Your task to perform on an android device: Clear the shopping cart on newegg. Image 0: 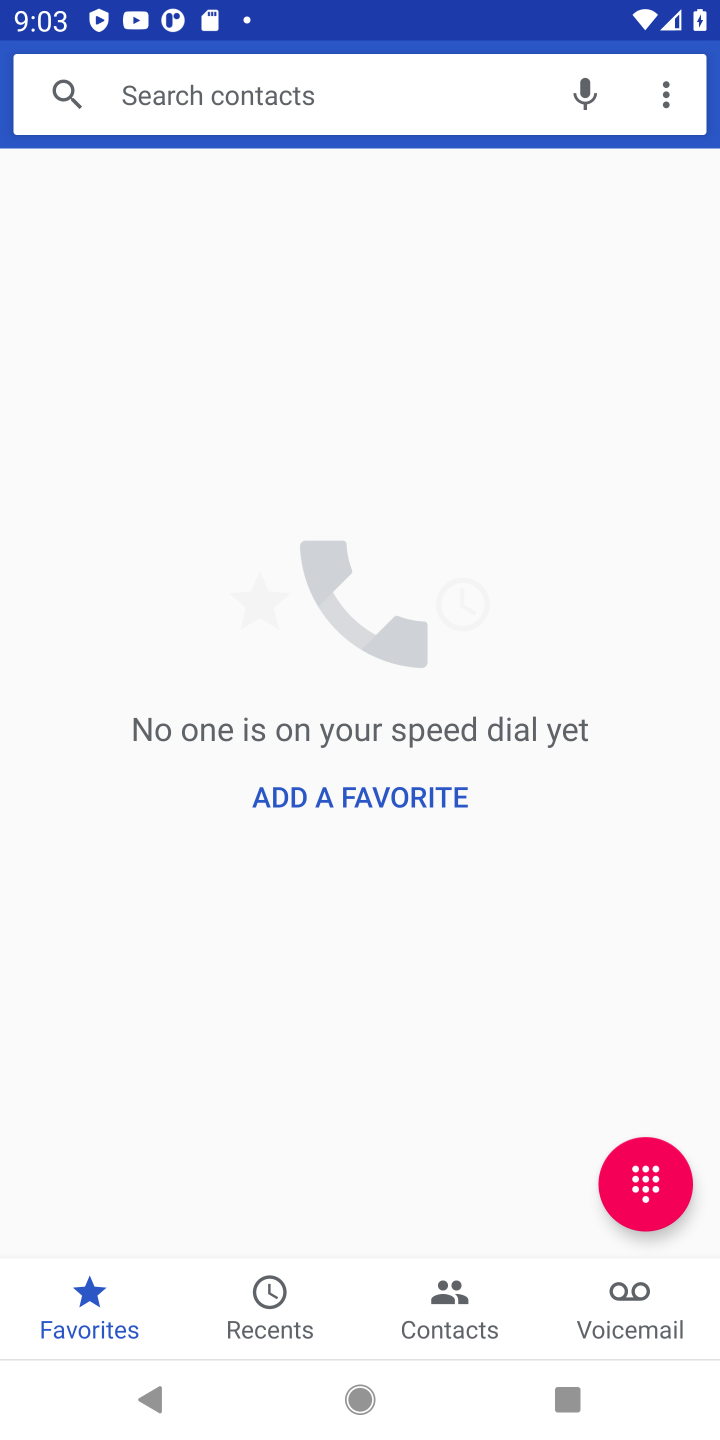
Step 0: press home button
Your task to perform on an android device: Clear the shopping cart on newegg. Image 1: 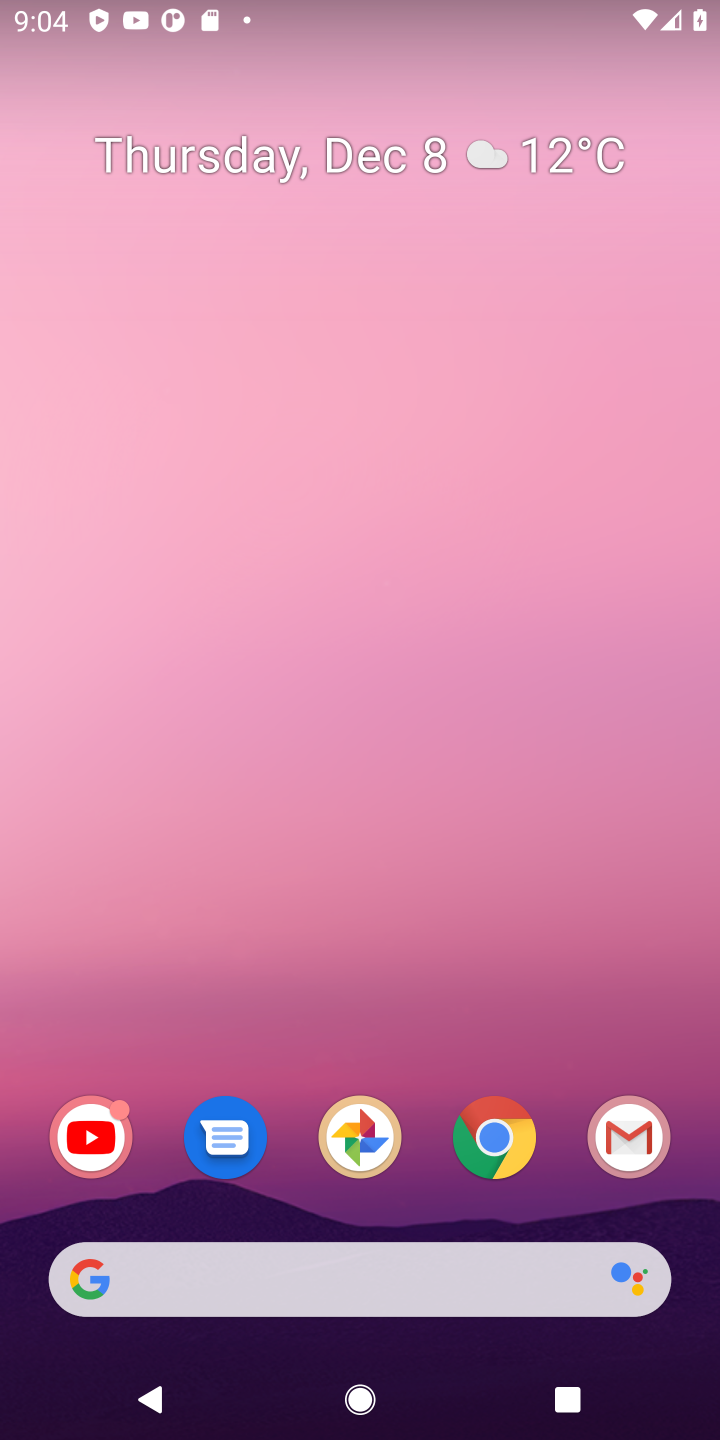
Step 1: click (486, 1142)
Your task to perform on an android device: Clear the shopping cart on newegg. Image 2: 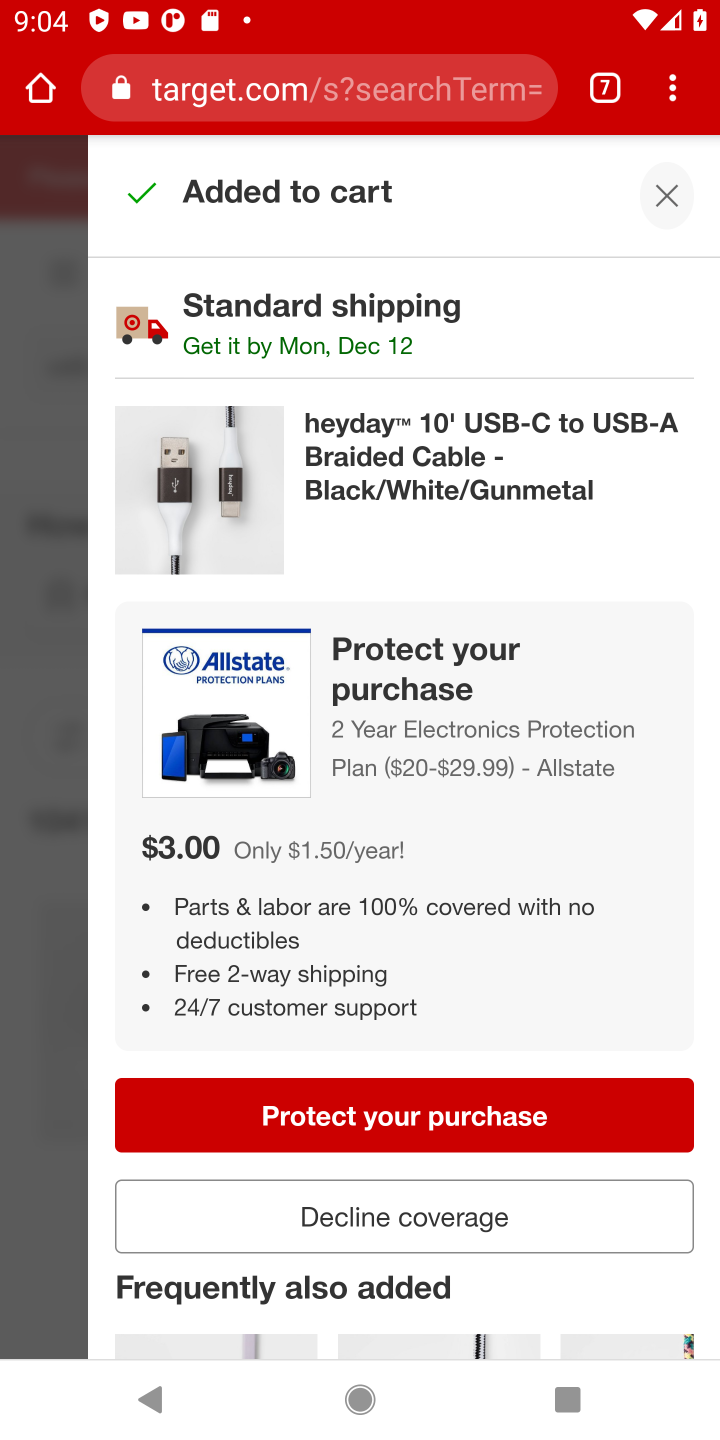
Step 2: click (600, 98)
Your task to perform on an android device: Clear the shopping cart on newegg. Image 3: 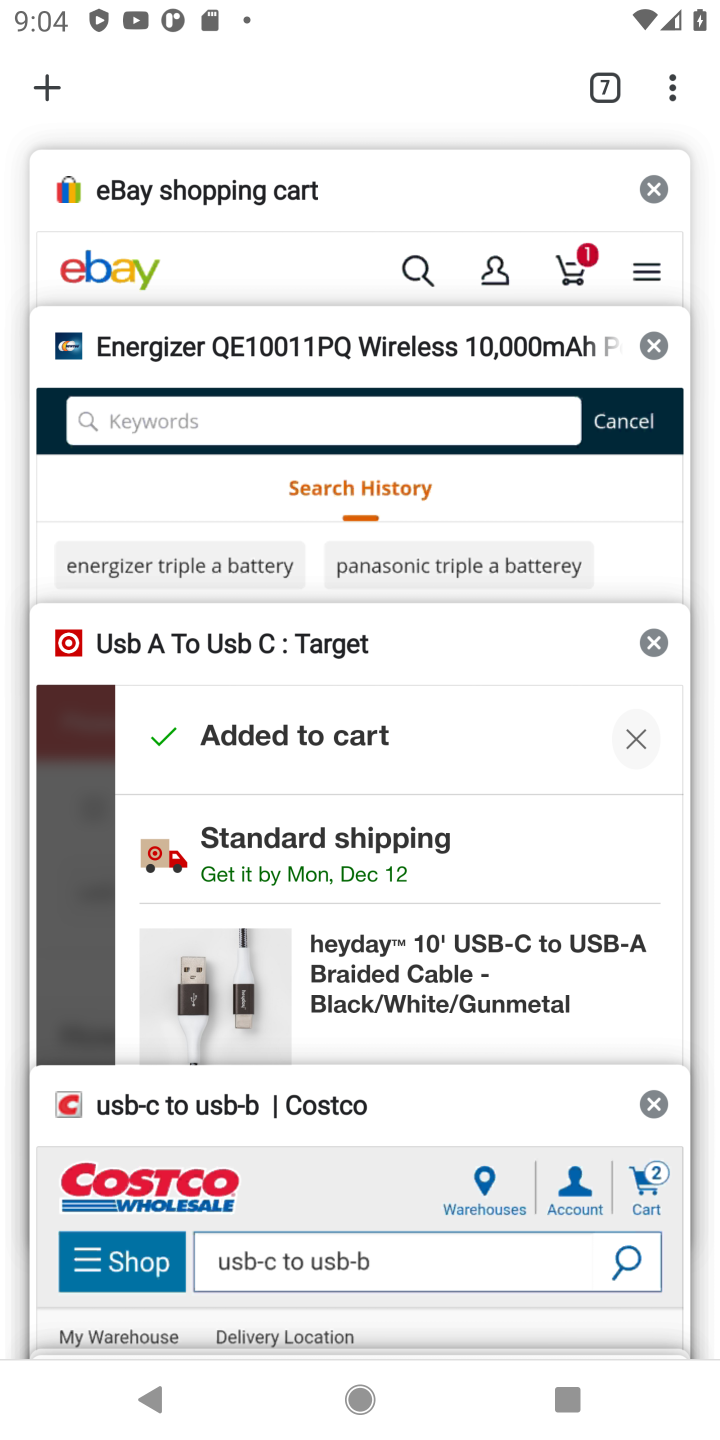
Step 3: click (305, 420)
Your task to perform on an android device: Clear the shopping cart on newegg. Image 4: 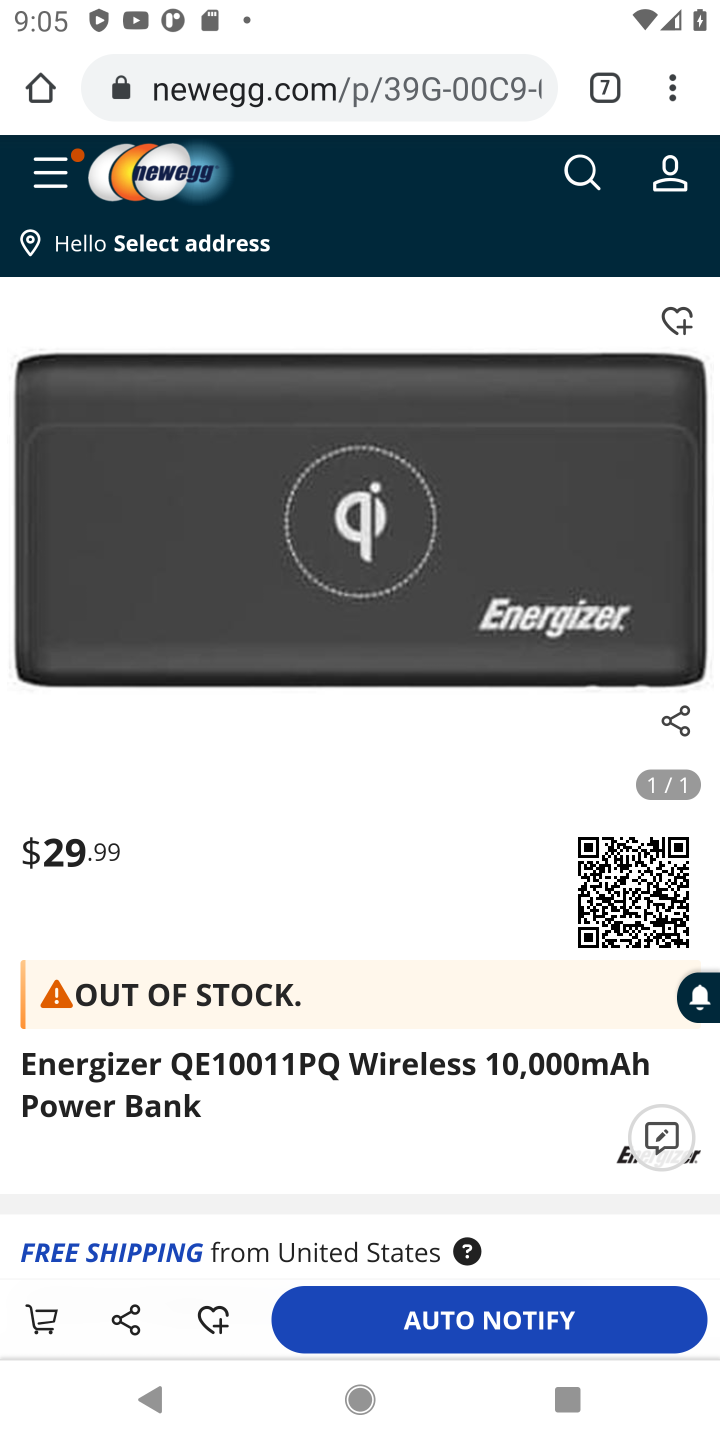
Step 4: click (42, 1303)
Your task to perform on an android device: Clear the shopping cart on newegg. Image 5: 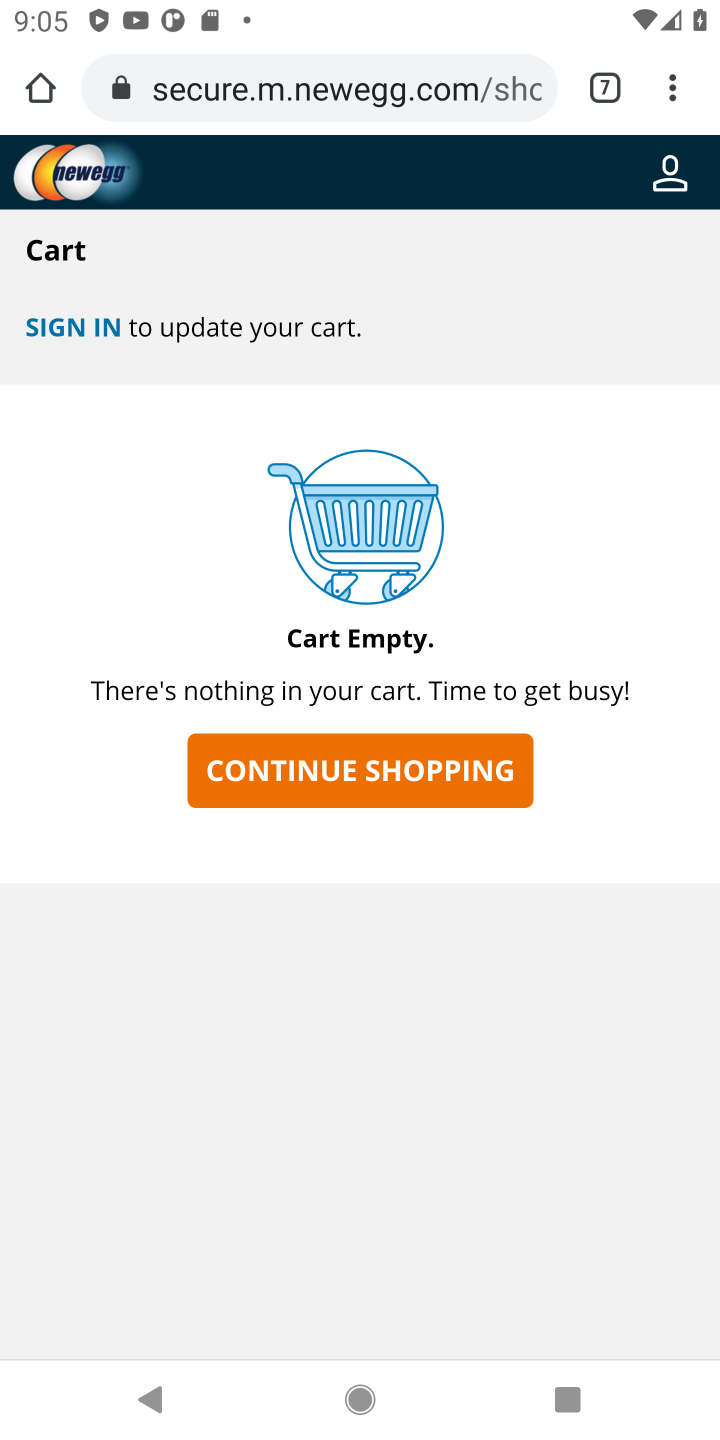
Step 5: task complete